Your task to perform on an android device: change the clock style Image 0: 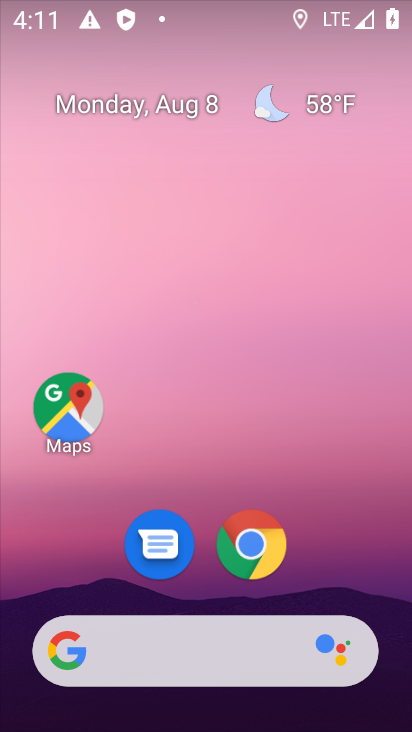
Step 0: drag from (233, 601) to (250, 136)
Your task to perform on an android device: change the clock style Image 1: 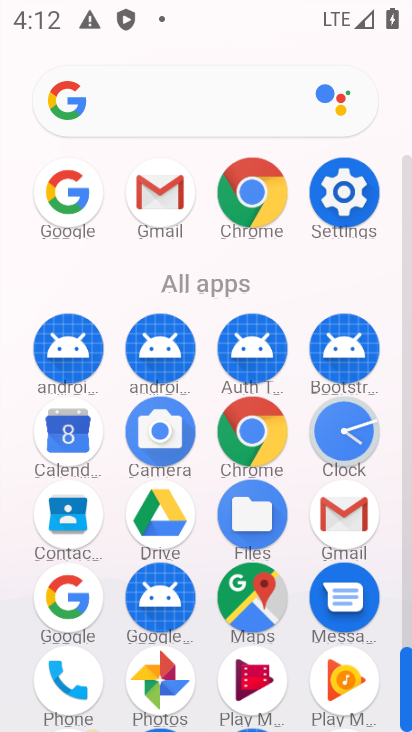
Step 1: click (335, 429)
Your task to perform on an android device: change the clock style Image 2: 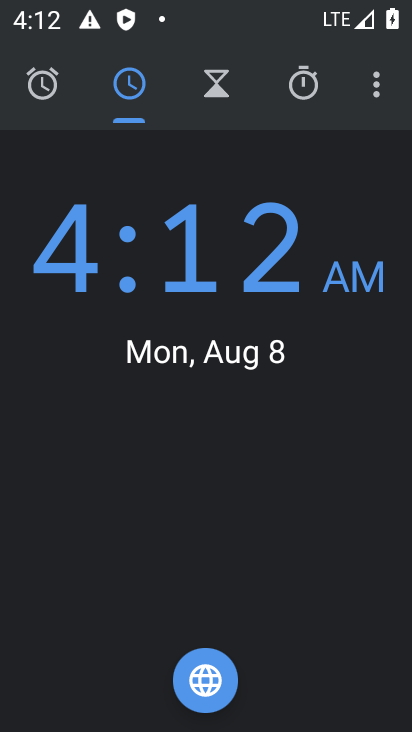
Step 2: click (382, 94)
Your task to perform on an android device: change the clock style Image 3: 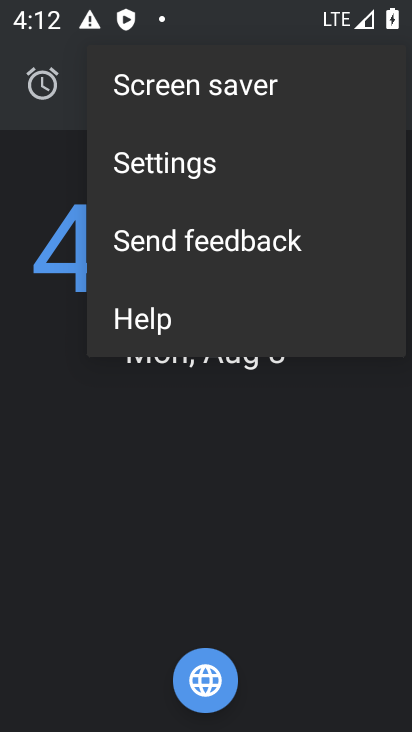
Step 3: click (127, 151)
Your task to perform on an android device: change the clock style Image 4: 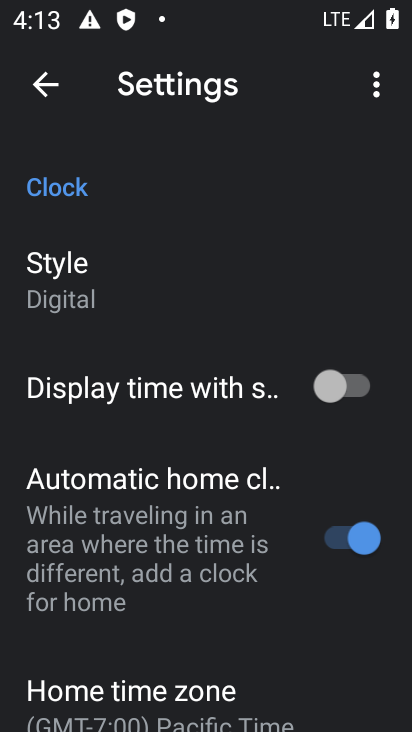
Step 4: click (157, 277)
Your task to perform on an android device: change the clock style Image 5: 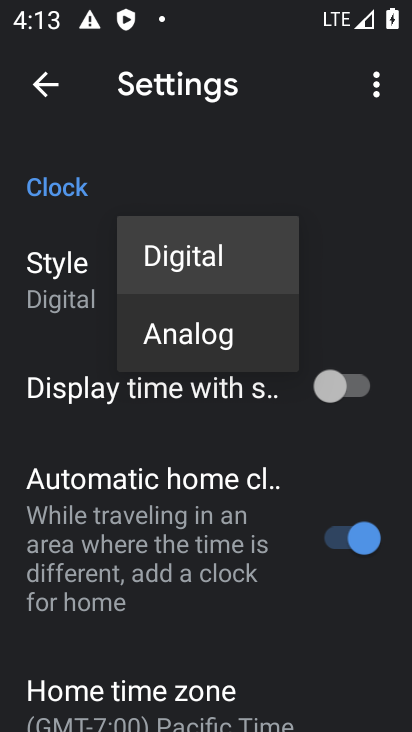
Step 5: click (170, 323)
Your task to perform on an android device: change the clock style Image 6: 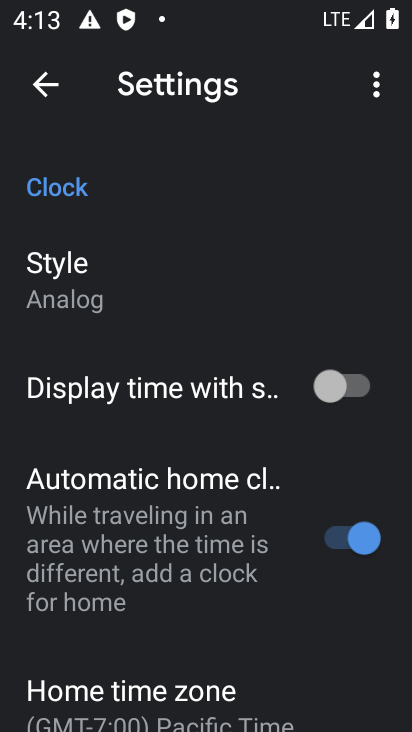
Step 6: task complete